Your task to perform on an android device: see sites visited before in the chrome app Image 0: 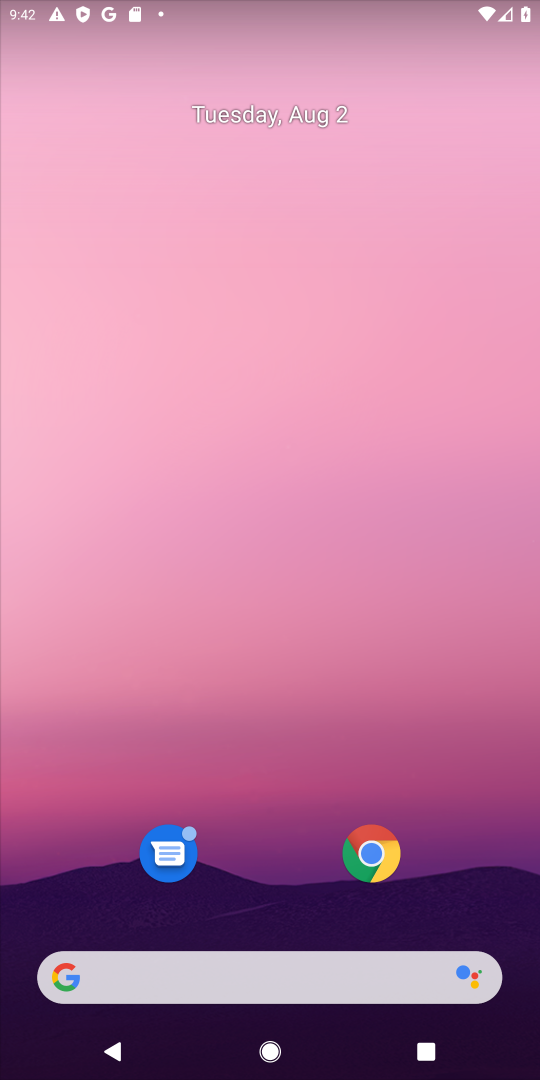
Step 0: drag from (475, 895) to (371, 0)
Your task to perform on an android device: see sites visited before in the chrome app Image 1: 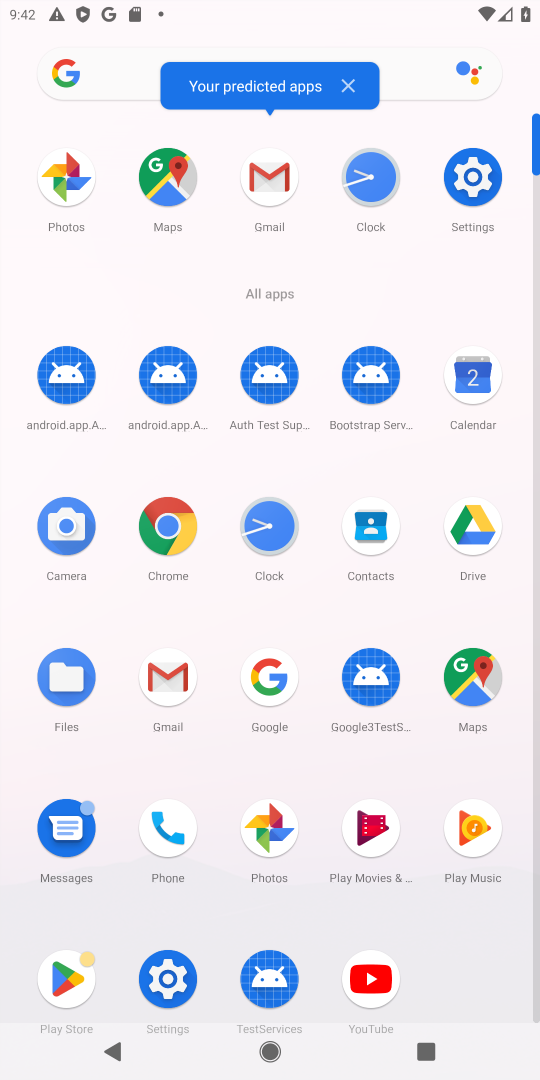
Step 1: click (178, 559)
Your task to perform on an android device: see sites visited before in the chrome app Image 2: 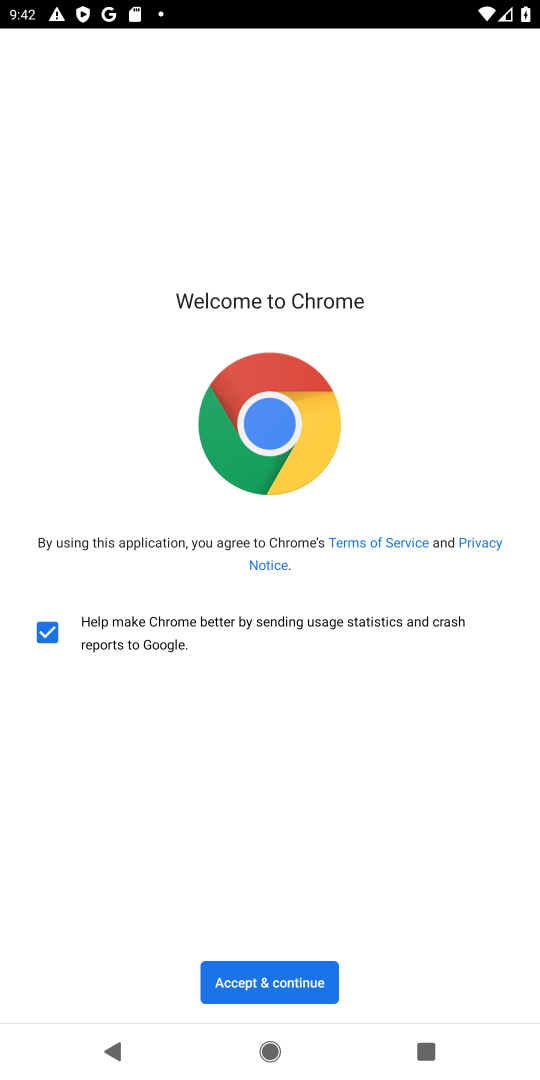
Step 2: click (312, 987)
Your task to perform on an android device: see sites visited before in the chrome app Image 3: 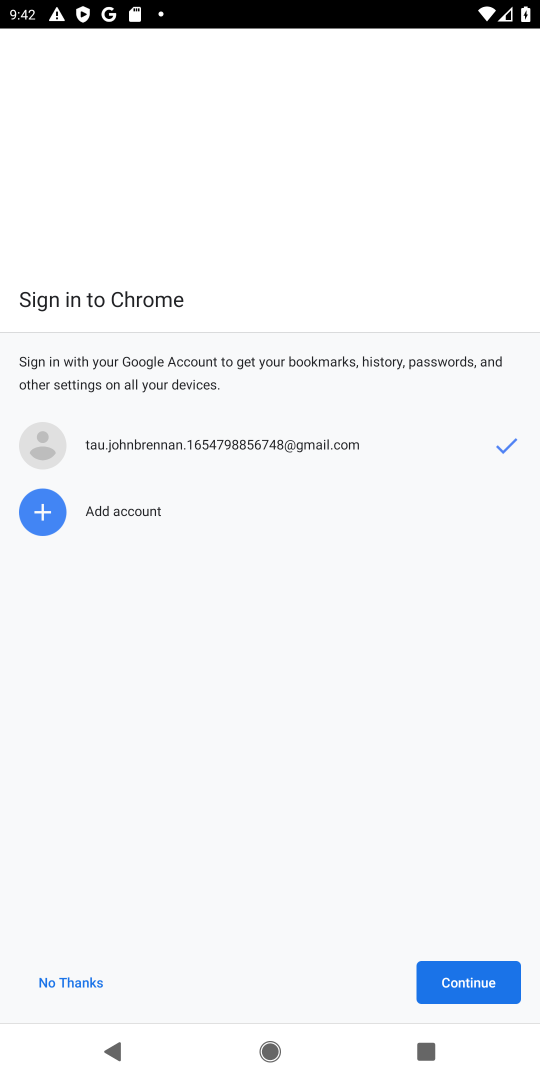
Step 3: click (458, 975)
Your task to perform on an android device: see sites visited before in the chrome app Image 4: 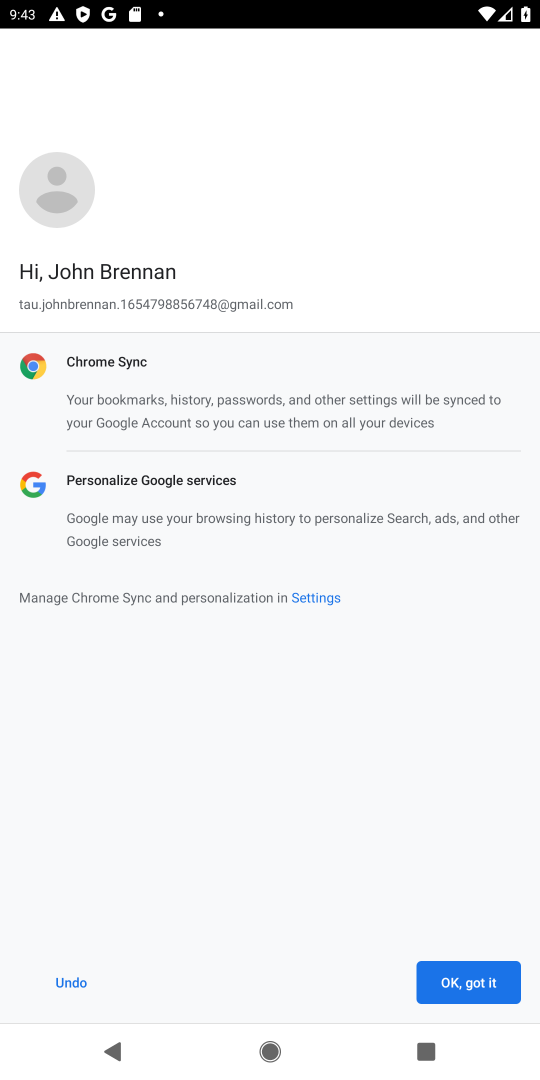
Step 4: click (482, 985)
Your task to perform on an android device: see sites visited before in the chrome app Image 5: 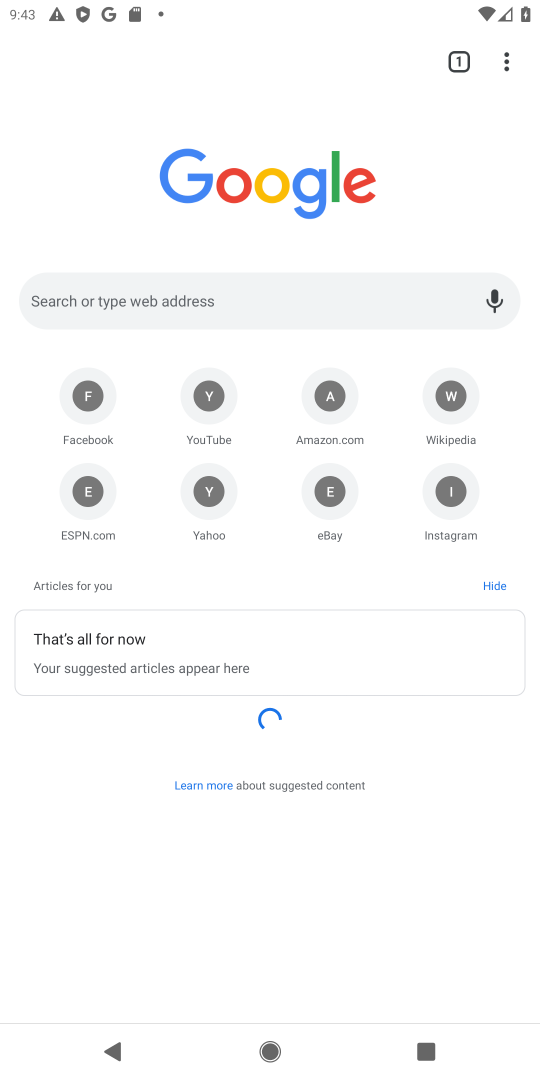
Step 5: click (506, 64)
Your task to perform on an android device: see sites visited before in the chrome app Image 6: 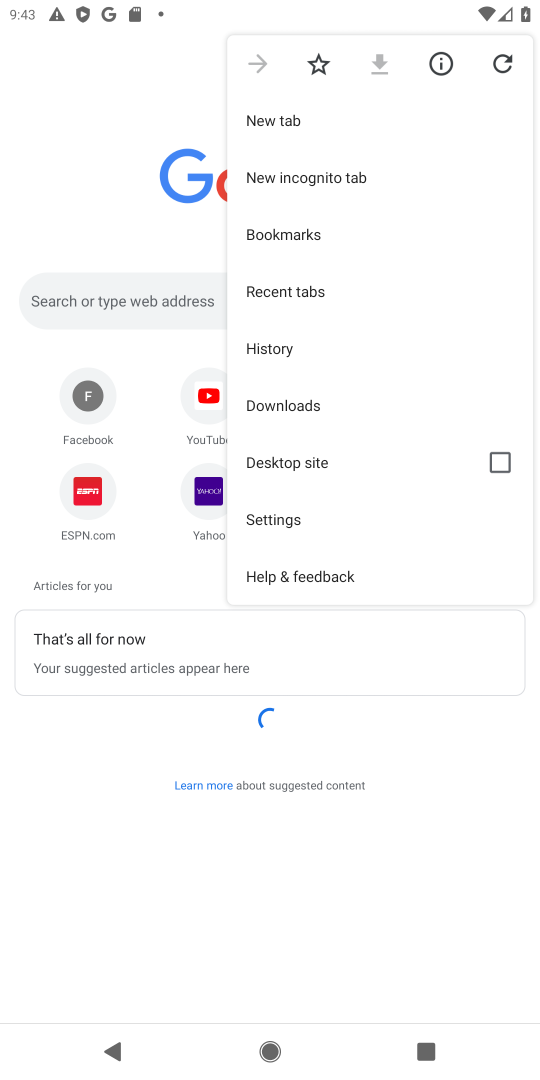
Step 6: click (301, 343)
Your task to perform on an android device: see sites visited before in the chrome app Image 7: 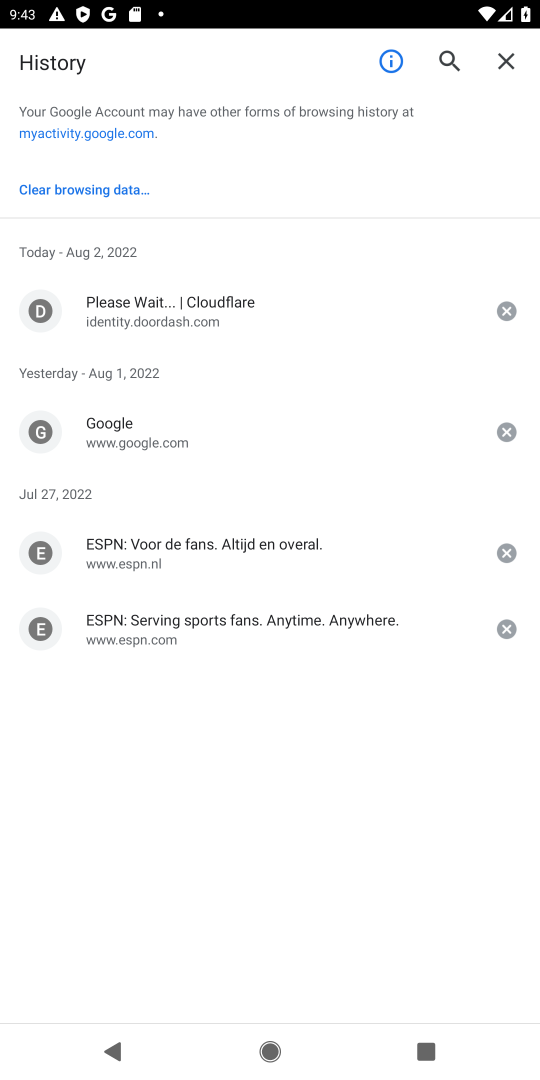
Step 7: task complete